Your task to perform on an android device: Go to settings Image 0: 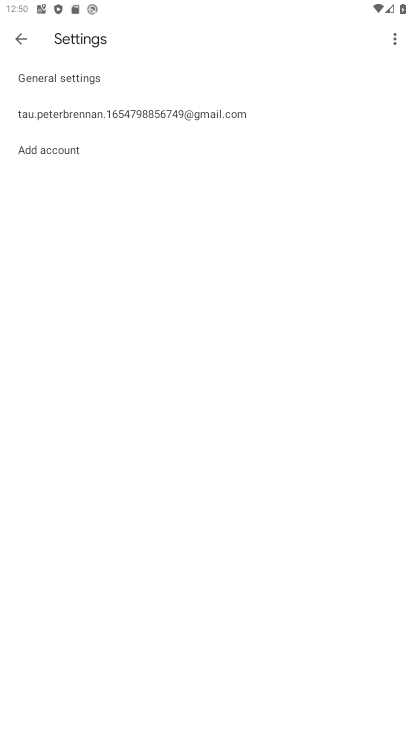
Step 0: press home button
Your task to perform on an android device: Go to settings Image 1: 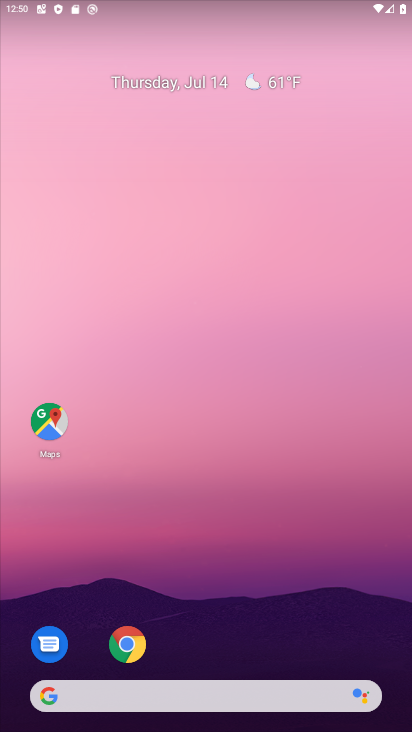
Step 1: drag from (312, 690) to (342, 329)
Your task to perform on an android device: Go to settings Image 2: 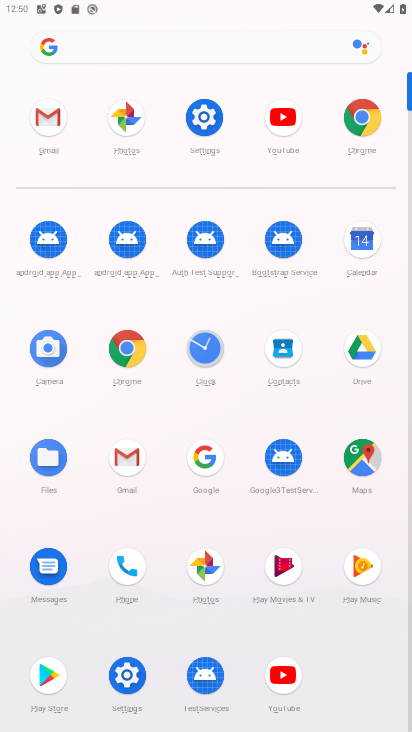
Step 2: click (212, 116)
Your task to perform on an android device: Go to settings Image 3: 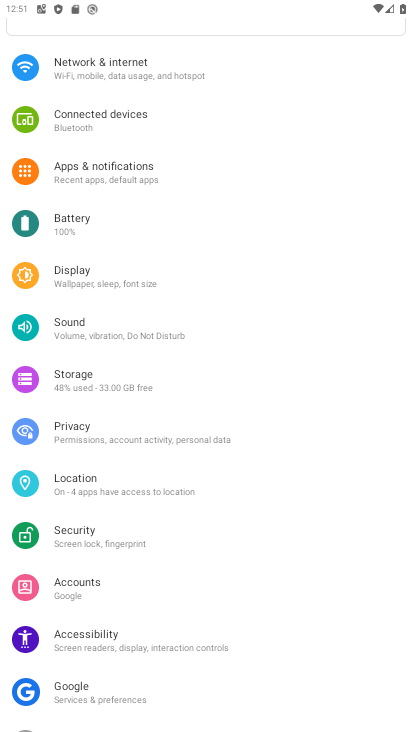
Step 3: task complete